Your task to perform on an android device: Check the news Image 0: 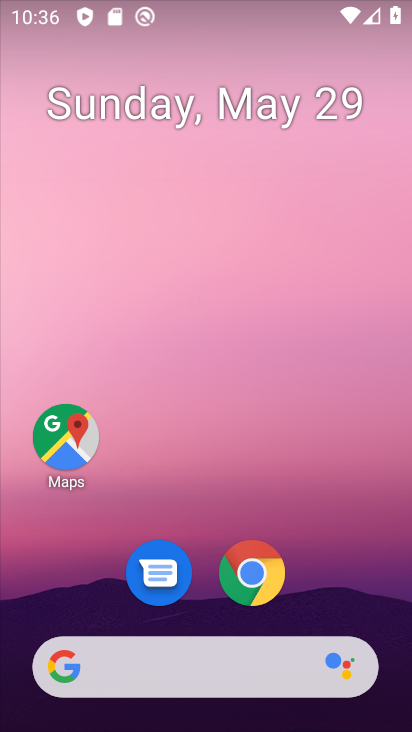
Step 0: click (235, 663)
Your task to perform on an android device: Check the news Image 1: 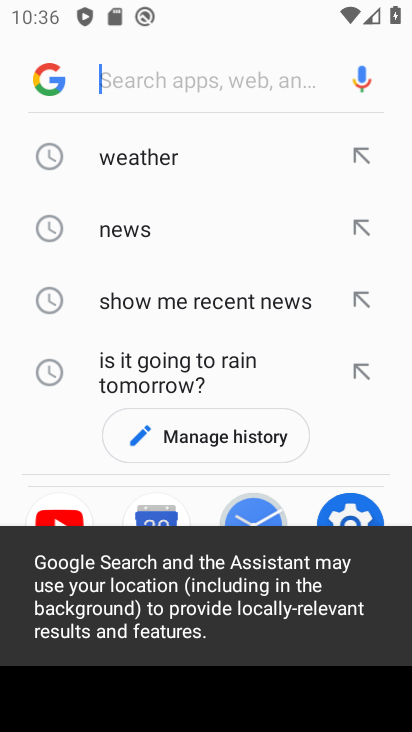
Step 1: click (115, 234)
Your task to perform on an android device: Check the news Image 2: 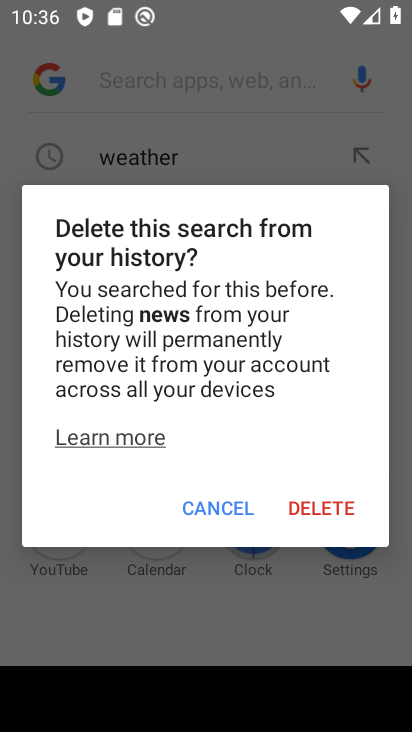
Step 2: click (331, 500)
Your task to perform on an android device: Check the news Image 3: 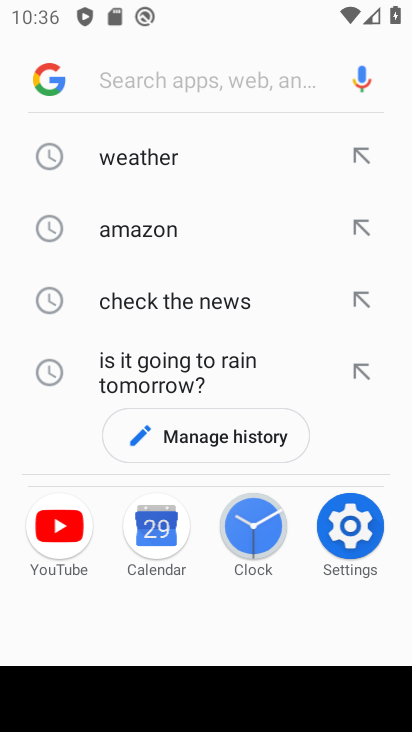
Step 3: type " news"
Your task to perform on an android device: Check the news Image 4: 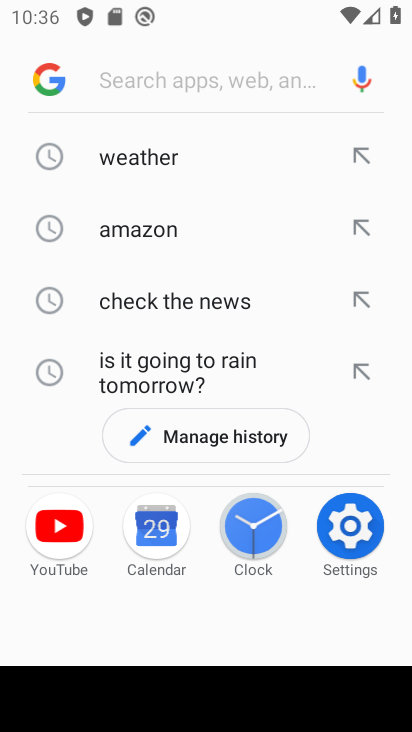
Step 4: click (214, 80)
Your task to perform on an android device: Check the news Image 5: 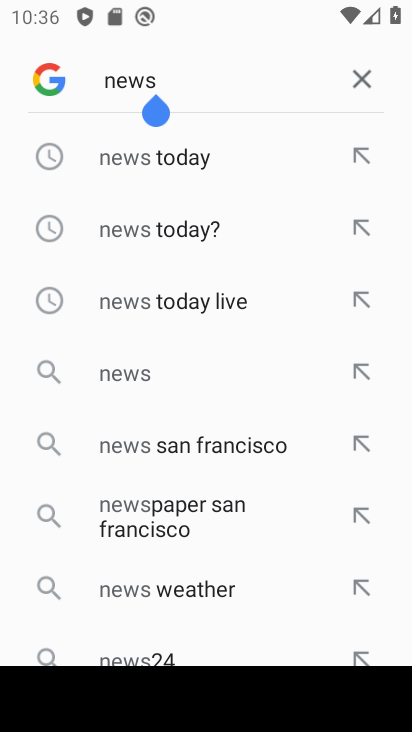
Step 5: click (116, 377)
Your task to perform on an android device: Check the news Image 6: 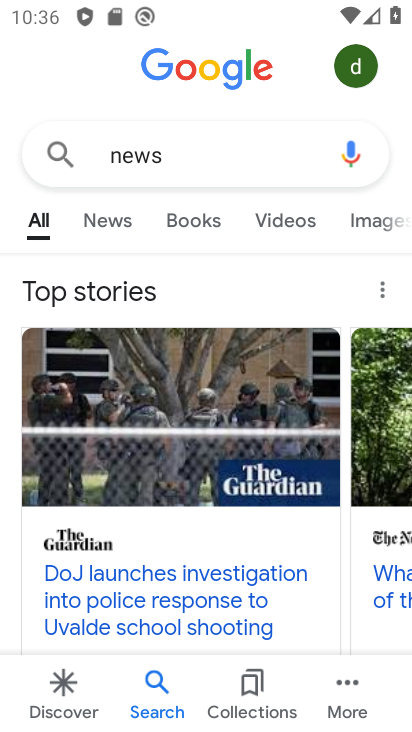
Step 6: task complete